Your task to perform on an android device: turn off notifications in google photos Image 0: 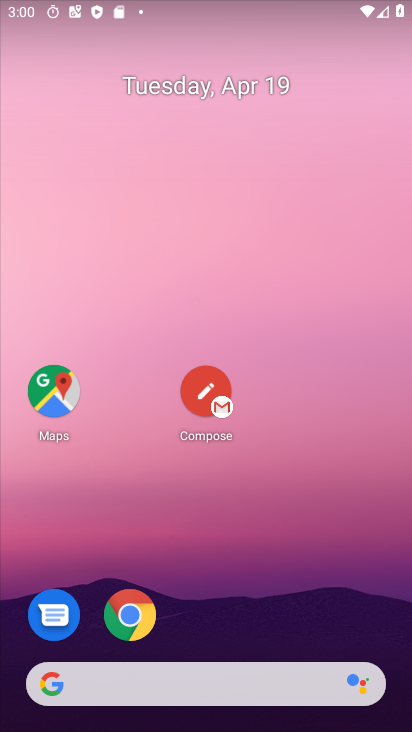
Step 0: drag from (324, 351) to (336, 41)
Your task to perform on an android device: turn off notifications in google photos Image 1: 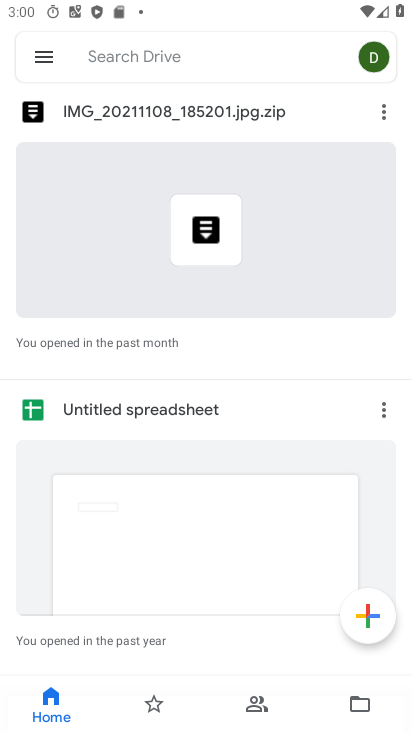
Step 1: drag from (268, 600) to (316, 41)
Your task to perform on an android device: turn off notifications in google photos Image 2: 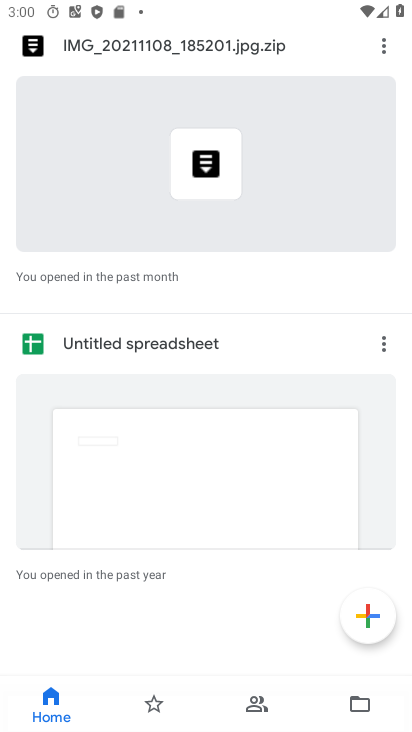
Step 2: press home button
Your task to perform on an android device: turn off notifications in google photos Image 3: 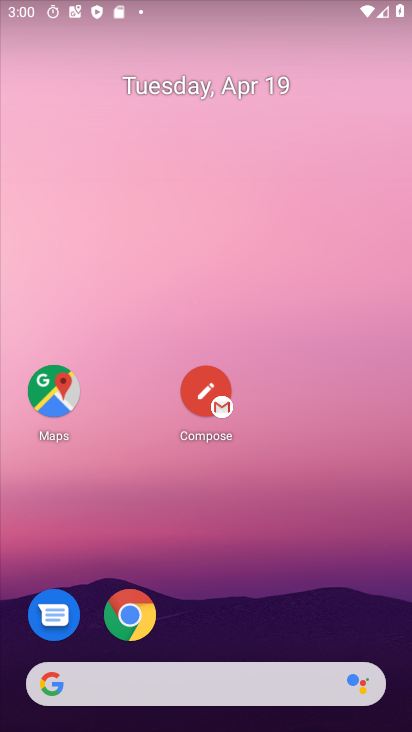
Step 3: drag from (224, 601) to (334, 7)
Your task to perform on an android device: turn off notifications in google photos Image 4: 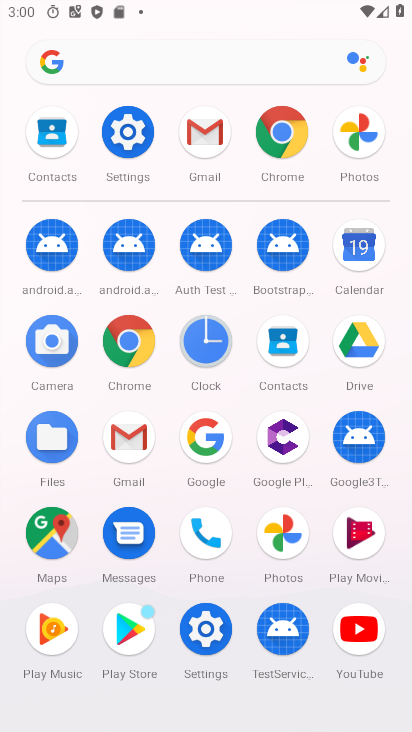
Step 4: click (283, 533)
Your task to perform on an android device: turn off notifications in google photos Image 5: 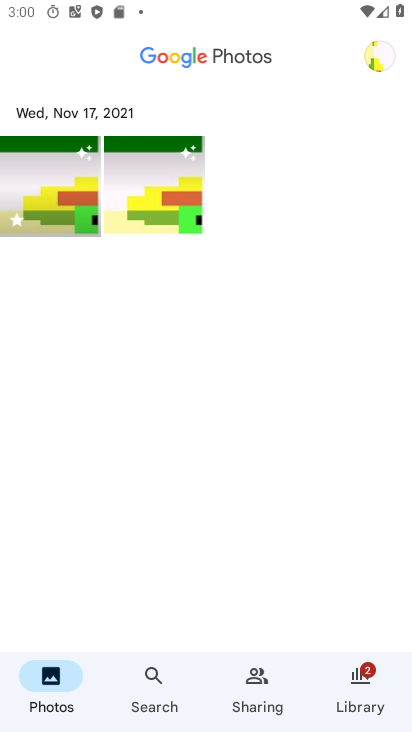
Step 5: click (370, 54)
Your task to perform on an android device: turn off notifications in google photos Image 6: 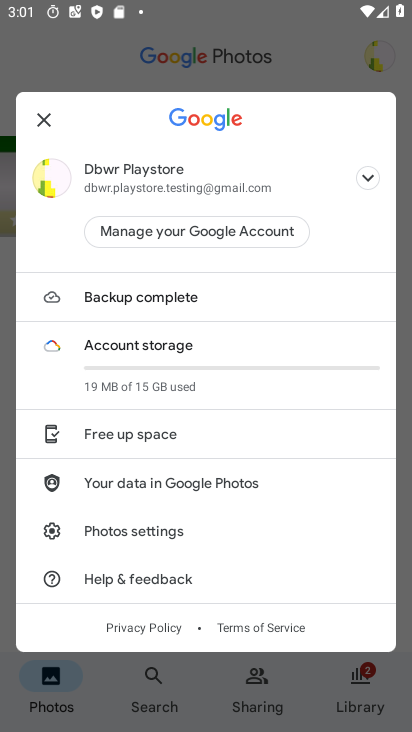
Step 6: drag from (197, 557) to (253, 243)
Your task to perform on an android device: turn off notifications in google photos Image 7: 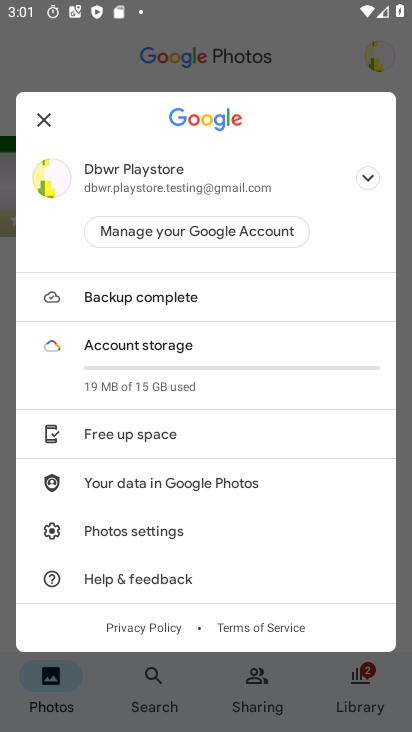
Step 7: click (144, 526)
Your task to perform on an android device: turn off notifications in google photos Image 8: 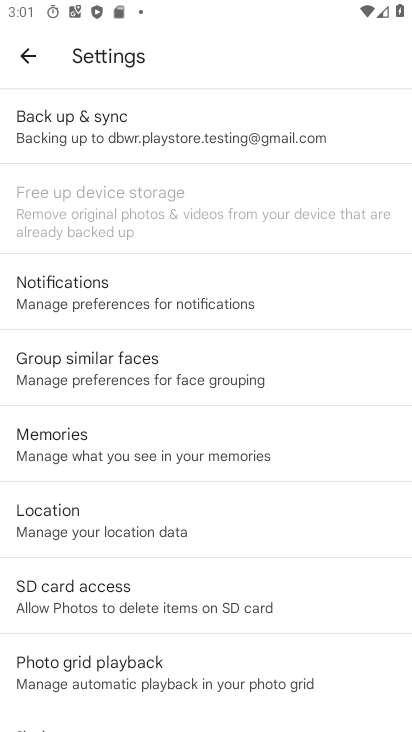
Step 8: click (167, 293)
Your task to perform on an android device: turn off notifications in google photos Image 9: 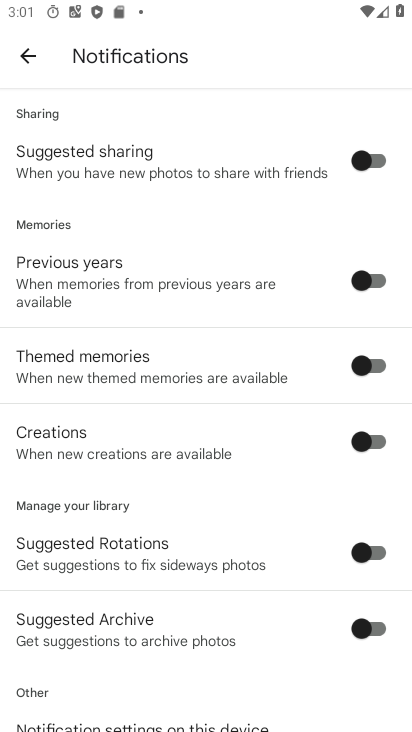
Step 9: drag from (172, 666) to (220, 149)
Your task to perform on an android device: turn off notifications in google photos Image 10: 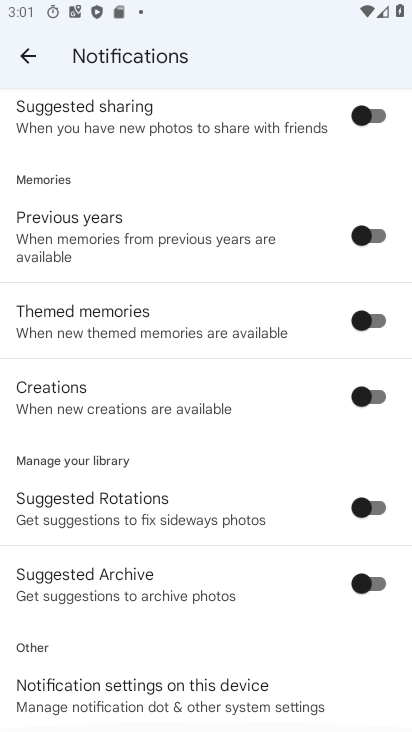
Step 10: click (268, 696)
Your task to perform on an android device: turn off notifications in google photos Image 11: 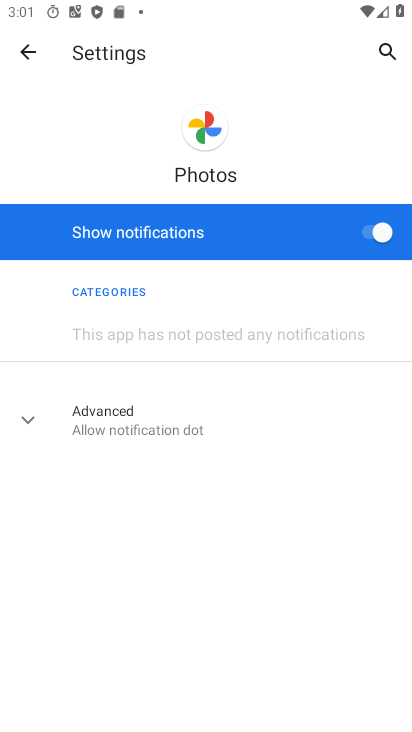
Step 11: click (370, 234)
Your task to perform on an android device: turn off notifications in google photos Image 12: 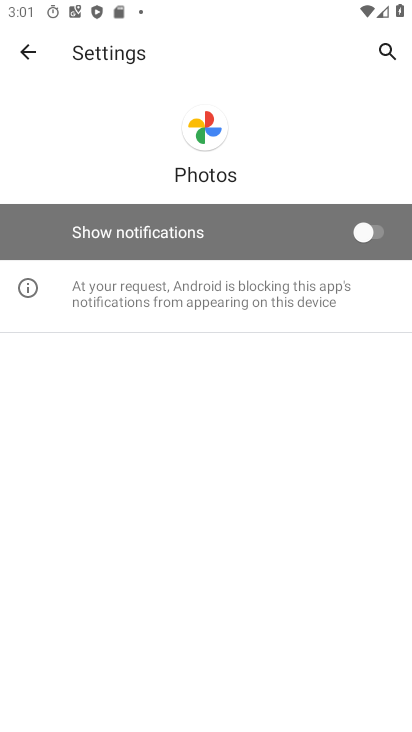
Step 12: task complete